Your task to perform on an android device: Go to location settings Image 0: 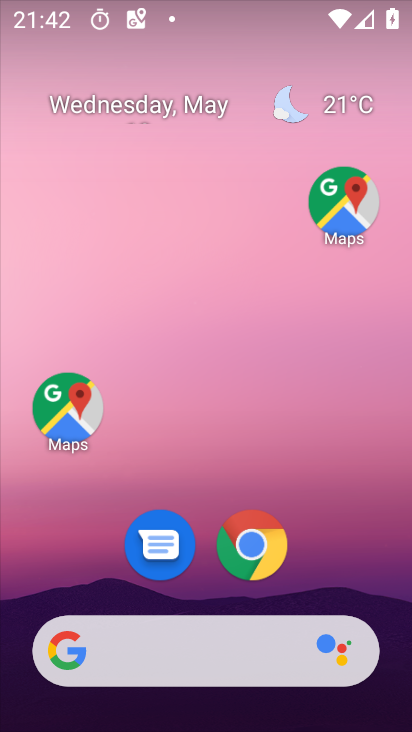
Step 0: drag from (309, 582) to (281, 73)
Your task to perform on an android device: Go to location settings Image 1: 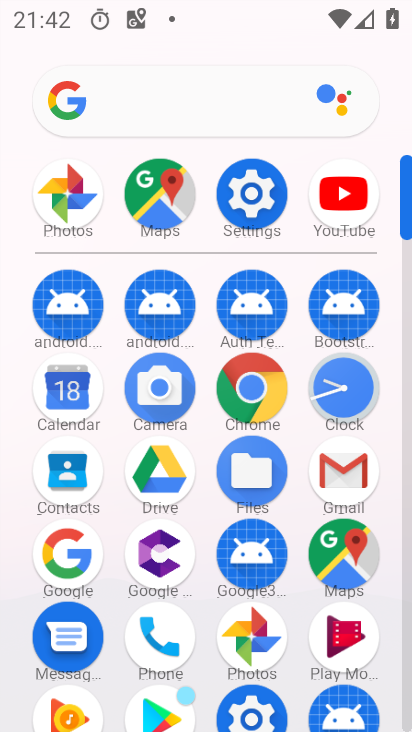
Step 1: click (246, 187)
Your task to perform on an android device: Go to location settings Image 2: 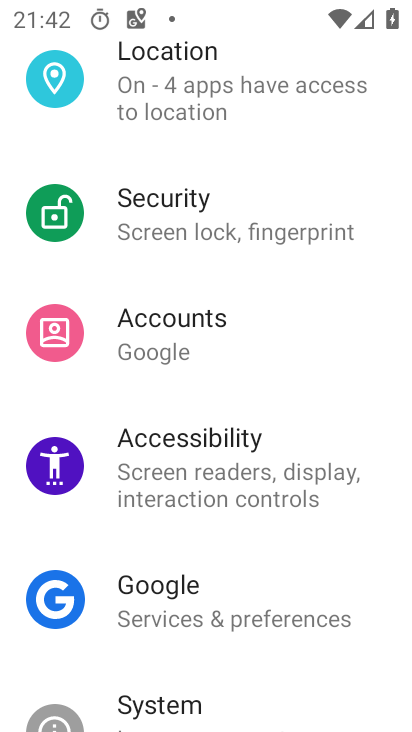
Step 2: click (227, 80)
Your task to perform on an android device: Go to location settings Image 3: 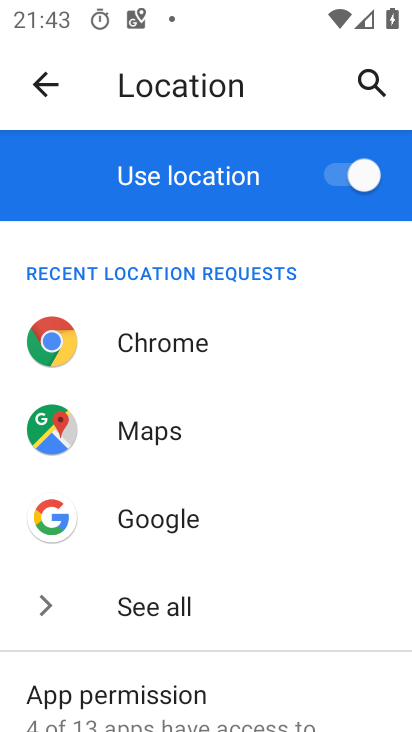
Step 3: task complete